Your task to perform on an android device: turn on improve location accuracy Image 0: 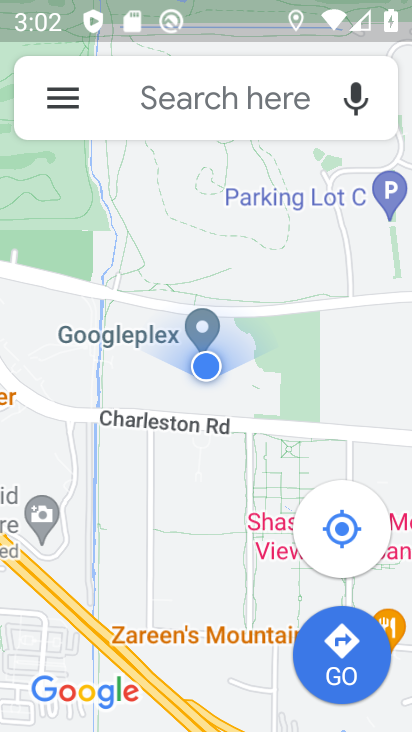
Step 0: press home button
Your task to perform on an android device: turn on improve location accuracy Image 1: 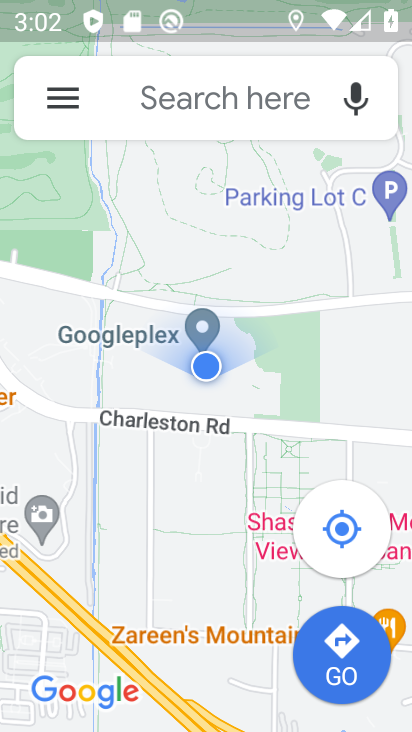
Step 1: press home button
Your task to perform on an android device: turn on improve location accuracy Image 2: 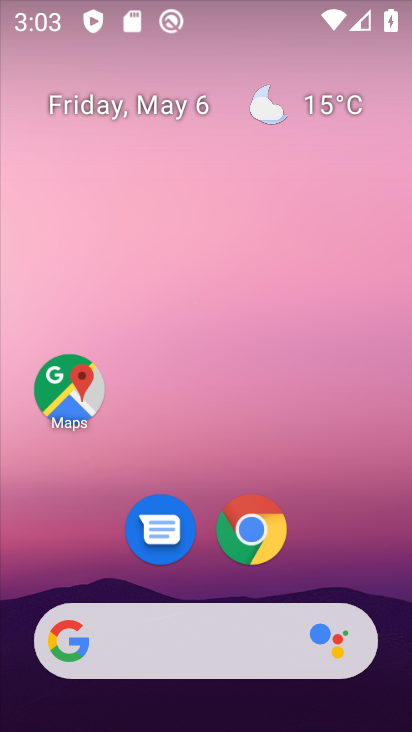
Step 2: drag from (398, 534) to (217, 171)
Your task to perform on an android device: turn on improve location accuracy Image 3: 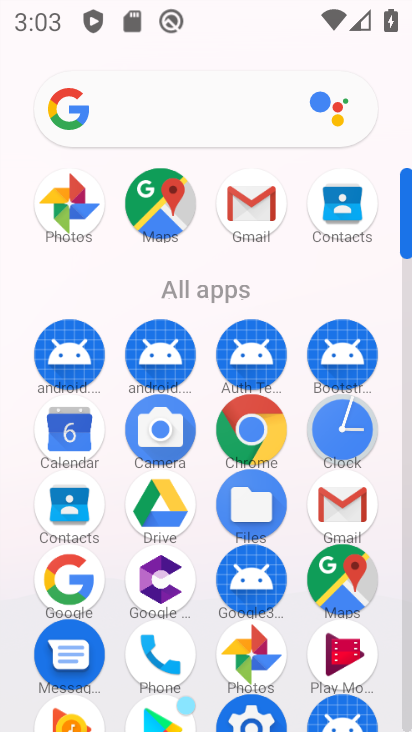
Step 3: drag from (293, 588) to (305, 227)
Your task to perform on an android device: turn on improve location accuracy Image 4: 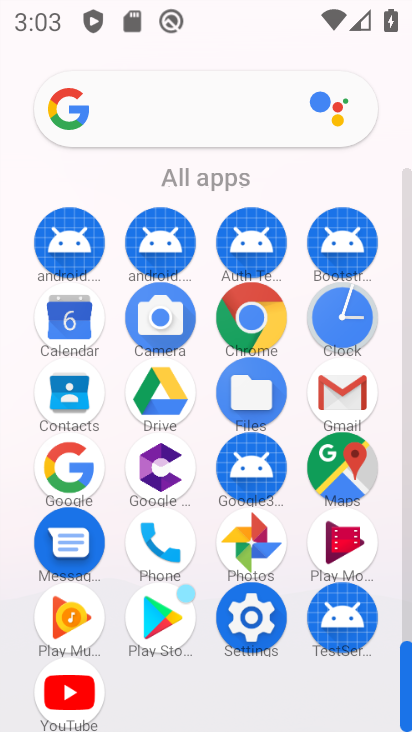
Step 4: click (255, 620)
Your task to perform on an android device: turn on improve location accuracy Image 5: 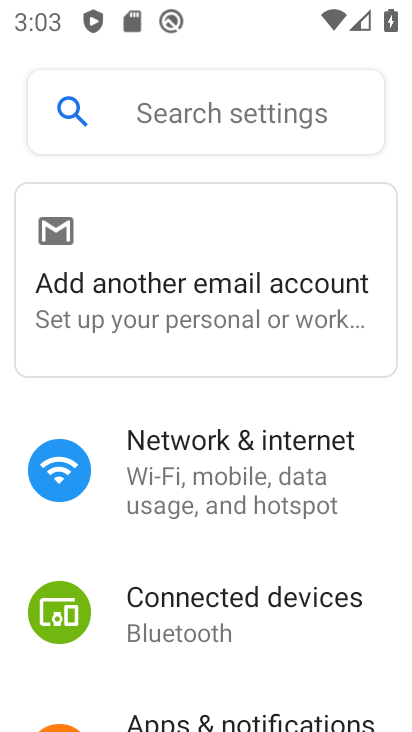
Step 5: drag from (230, 473) to (210, 269)
Your task to perform on an android device: turn on improve location accuracy Image 6: 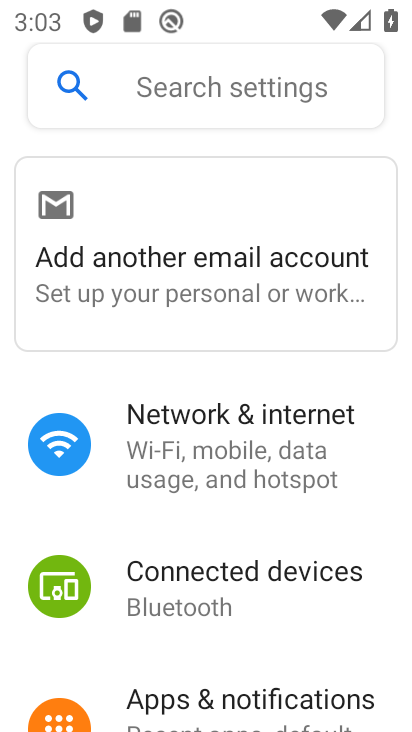
Step 6: drag from (277, 622) to (172, 291)
Your task to perform on an android device: turn on improve location accuracy Image 7: 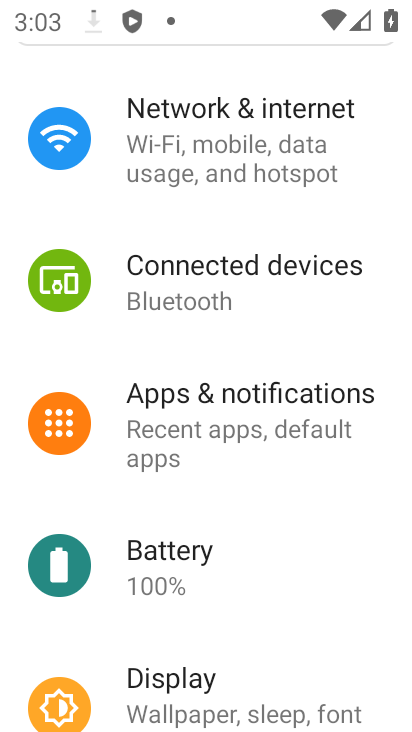
Step 7: drag from (243, 534) to (228, 178)
Your task to perform on an android device: turn on improve location accuracy Image 8: 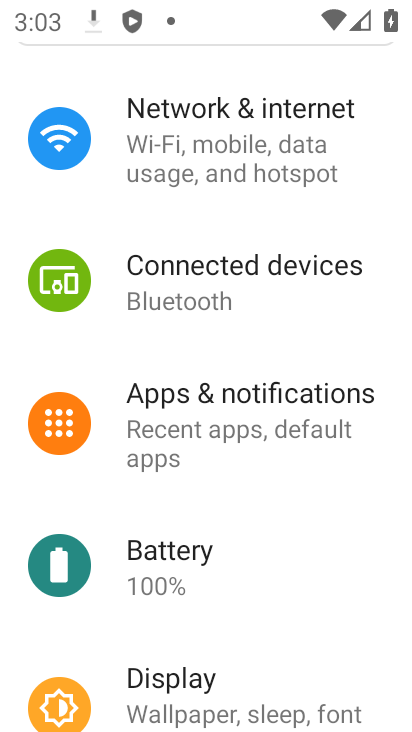
Step 8: drag from (232, 524) to (113, 226)
Your task to perform on an android device: turn on improve location accuracy Image 9: 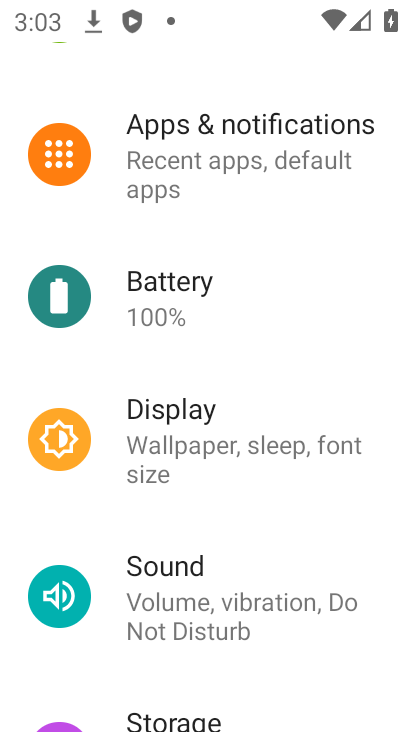
Step 9: drag from (226, 531) to (150, 239)
Your task to perform on an android device: turn on improve location accuracy Image 10: 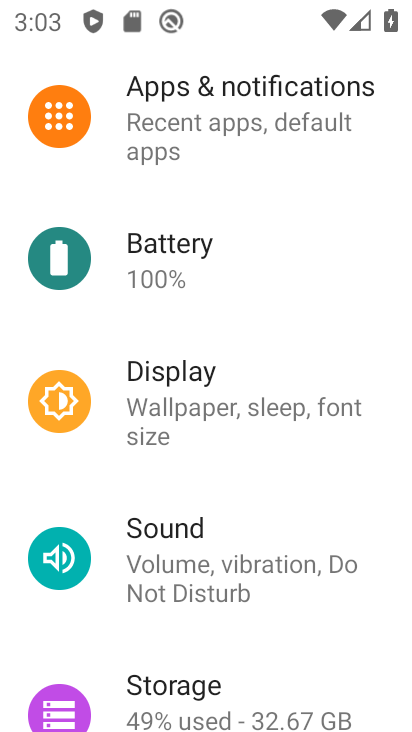
Step 10: drag from (222, 490) to (176, 233)
Your task to perform on an android device: turn on improve location accuracy Image 11: 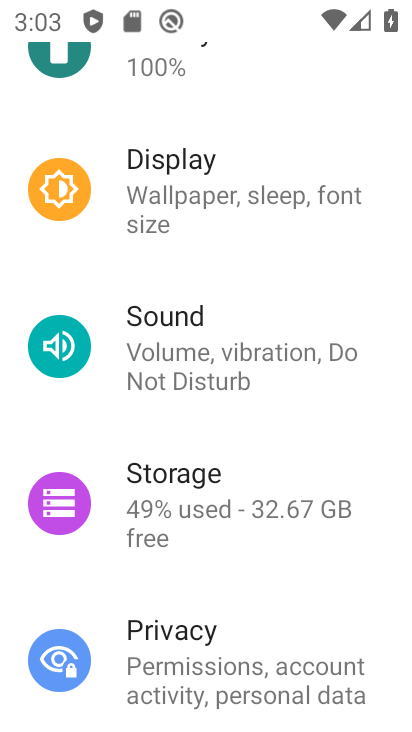
Step 11: drag from (259, 610) to (225, 220)
Your task to perform on an android device: turn on improve location accuracy Image 12: 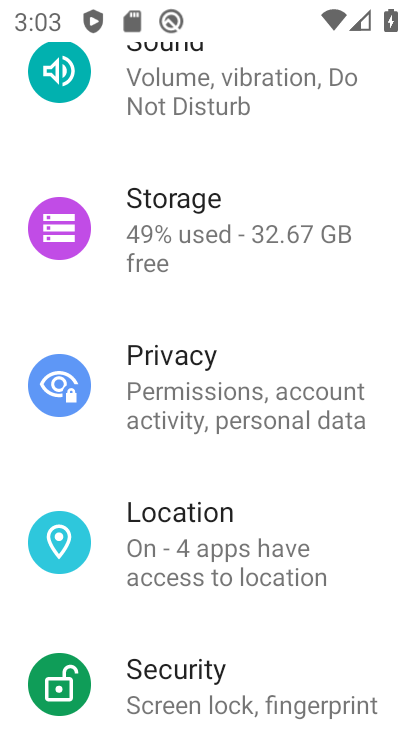
Step 12: drag from (236, 550) to (182, 188)
Your task to perform on an android device: turn on improve location accuracy Image 13: 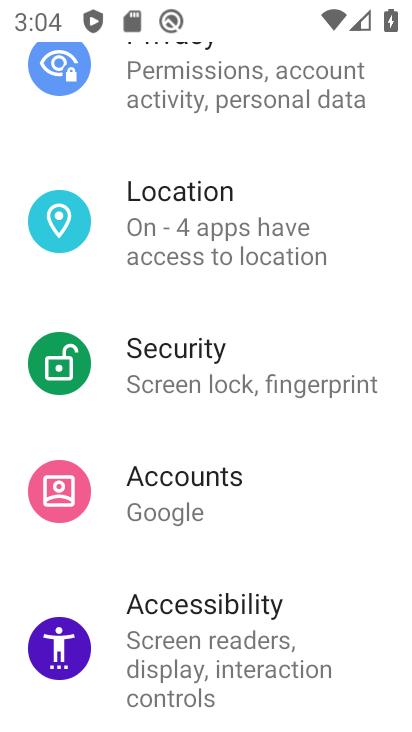
Step 13: click (195, 237)
Your task to perform on an android device: turn on improve location accuracy Image 14: 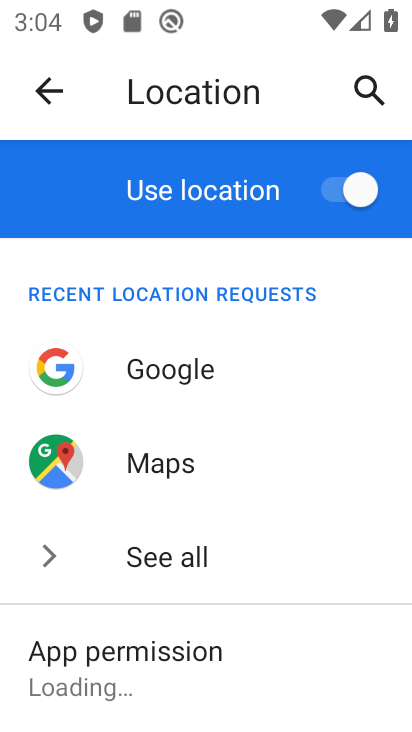
Step 14: drag from (191, 570) to (112, 342)
Your task to perform on an android device: turn on improve location accuracy Image 15: 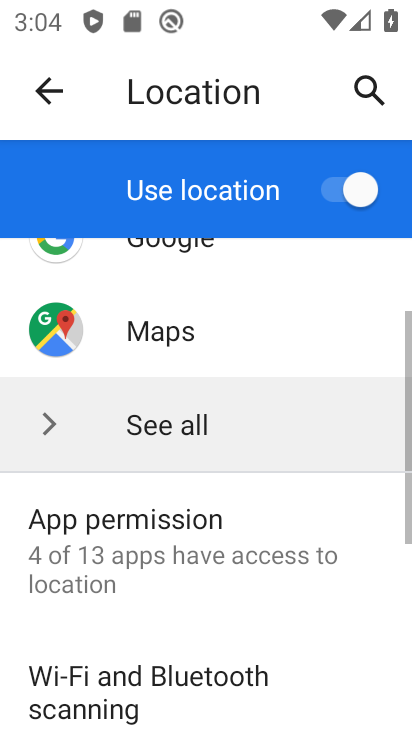
Step 15: drag from (218, 529) to (271, 277)
Your task to perform on an android device: turn on improve location accuracy Image 16: 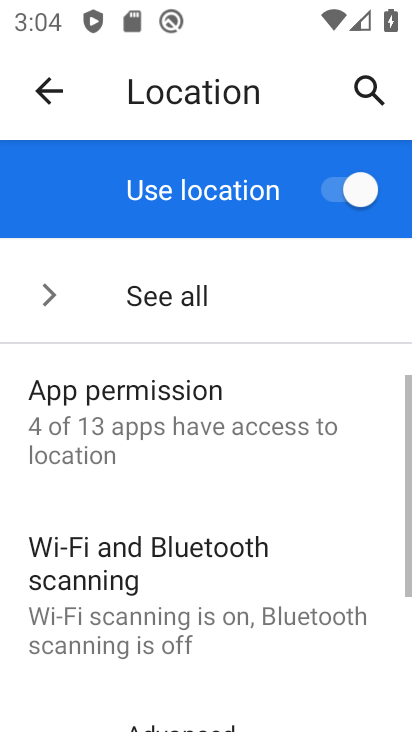
Step 16: drag from (267, 513) to (262, 250)
Your task to perform on an android device: turn on improve location accuracy Image 17: 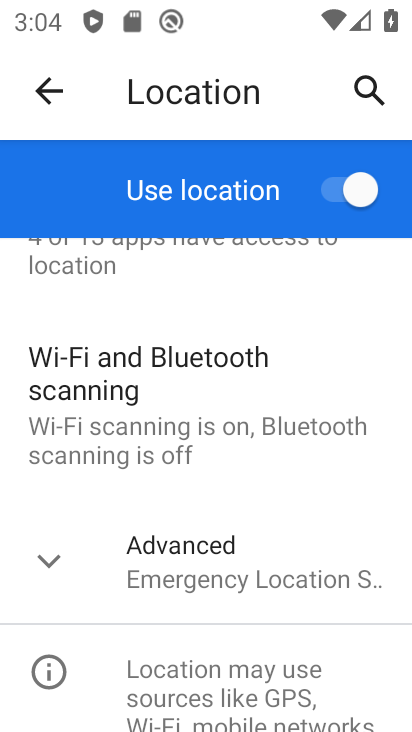
Step 17: click (193, 577)
Your task to perform on an android device: turn on improve location accuracy Image 18: 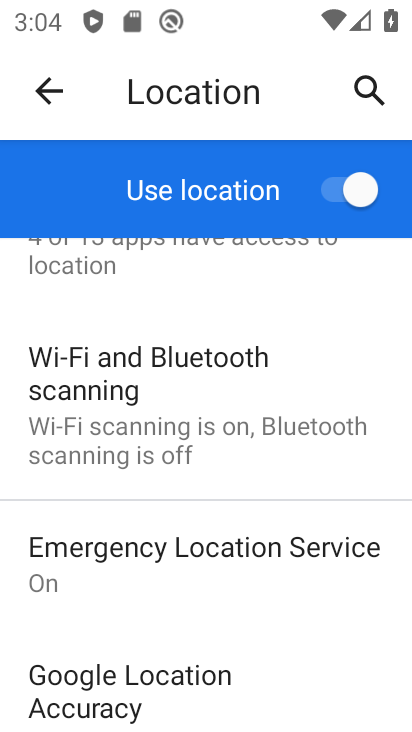
Step 18: drag from (174, 536) to (177, 266)
Your task to perform on an android device: turn on improve location accuracy Image 19: 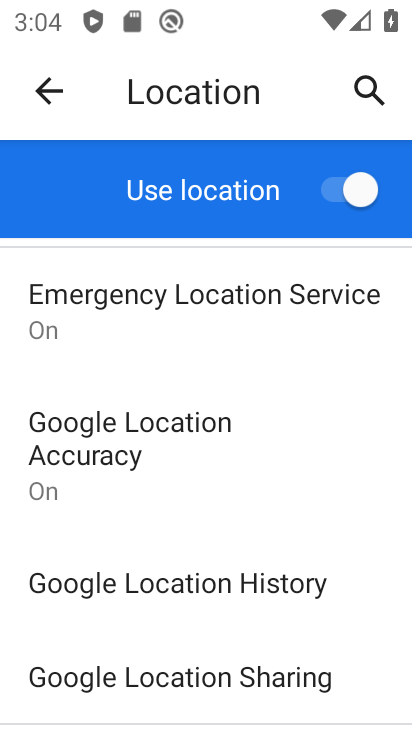
Step 19: click (124, 456)
Your task to perform on an android device: turn on improve location accuracy Image 20: 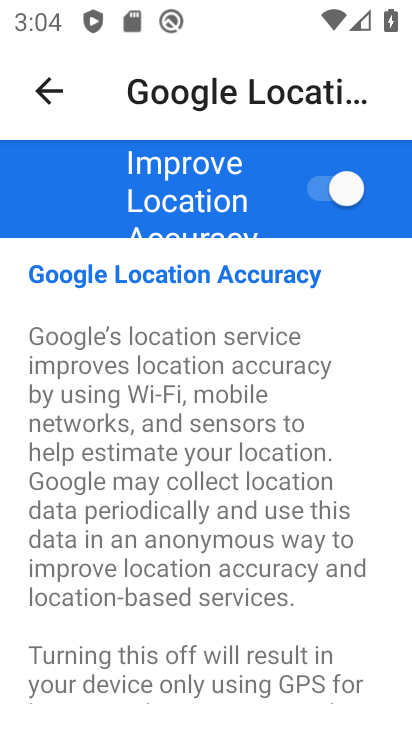
Step 20: task complete